Your task to perform on an android device: Open Chrome and go to the settings page Image 0: 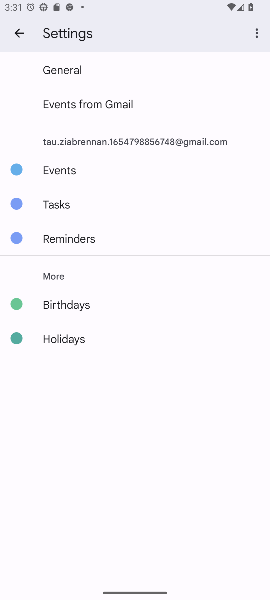
Step 0: press home button
Your task to perform on an android device: Open Chrome and go to the settings page Image 1: 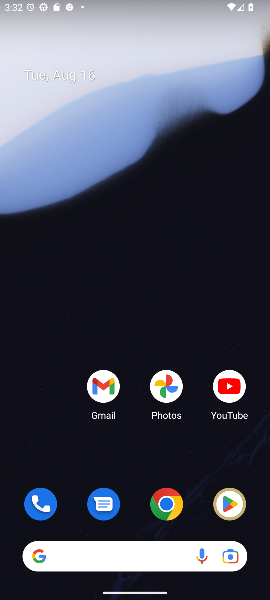
Step 1: click (169, 503)
Your task to perform on an android device: Open Chrome and go to the settings page Image 2: 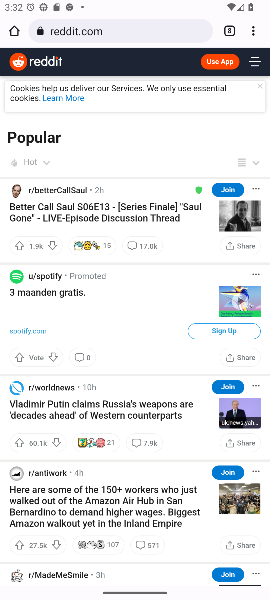
Step 2: click (250, 33)
Your task to perform on an android device: Open Chrome and go to the settings page Image 3: 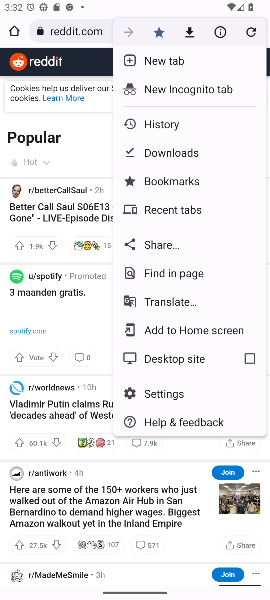
Step 3: click (163, 389)
Your task to perform on an android device: Open Chrome and go to the settings page Image 4: 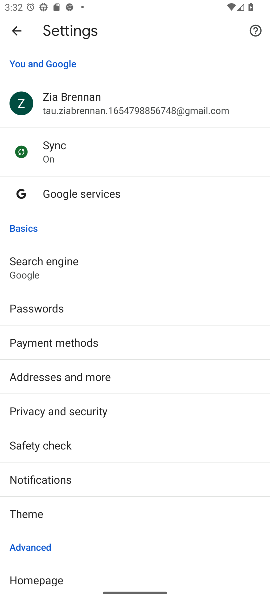
Step 4: task complete